Your task to perform on an android device: Add razer blade to the cart on target Image 0: 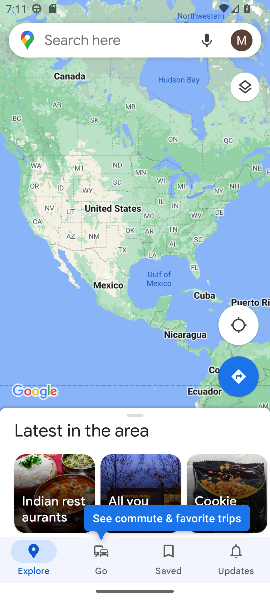
Step 0: press home button
Your task to perform on an android device: Add razer blade to the cart on target Image 1: 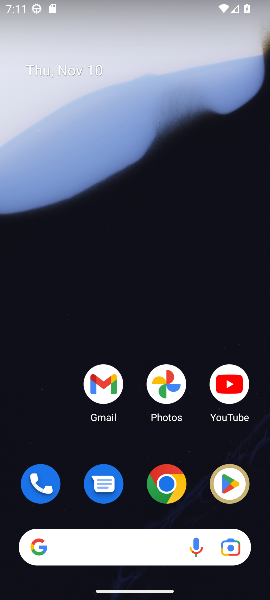
Step 1: click (168, 482)
Your task to perform on an android device: Add razer blade to the cart on target Image 2: 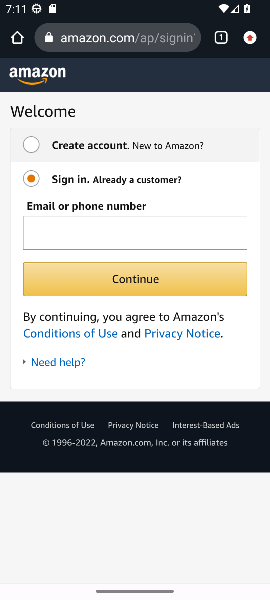
Step 2: click (114, 41)
Your task to perform on an android device: Add razer blade to the cart on target Image 3: 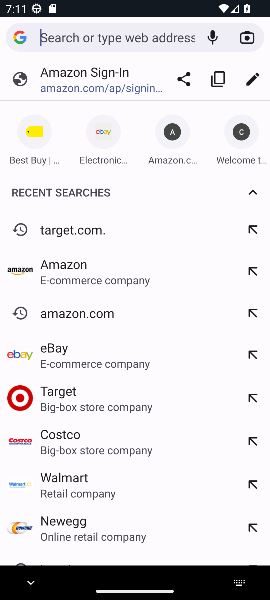
Step 3: type "target.com"
Your task to perform on an android device: Add razer blade to the cart on target Image 4: 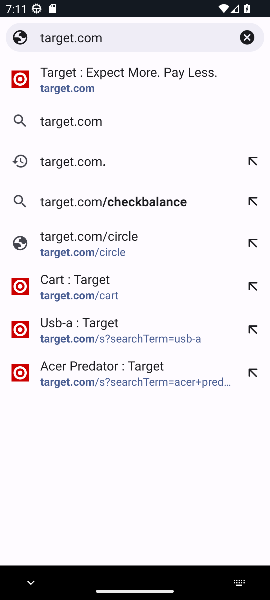
Step 4: click (59, 91)
Your task to perform on an android device: Add razer blade to the cart on target Image 5: 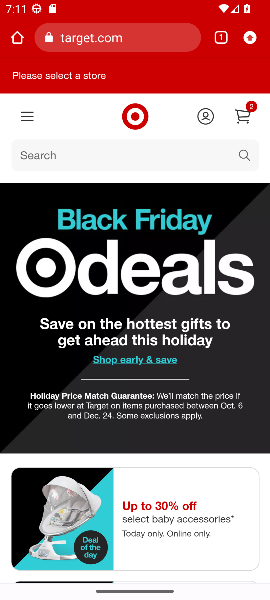
Step 5: click (246, 156)
Your task to perform on an android device: Add razer blade to the cart on target Image 6: 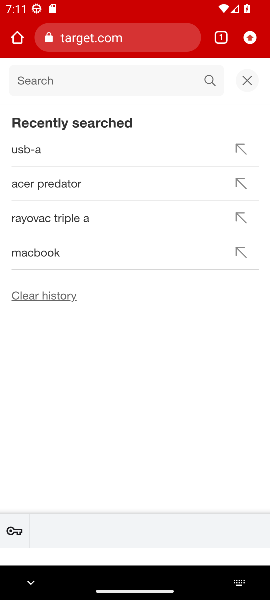
Step 6: type "razer blade "
Your task to perform on an android device: Add razer blade to the cart on target Image 7: 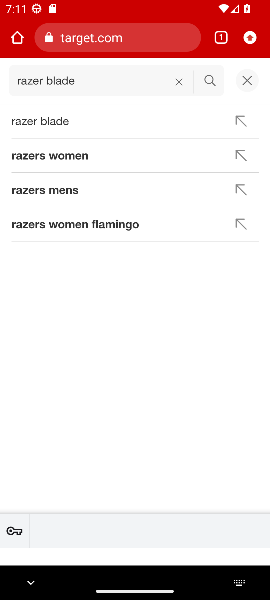
Step 7: click (25, 128)
Your task to perform on an android device: Add razer blade to the cart on target Image 8: 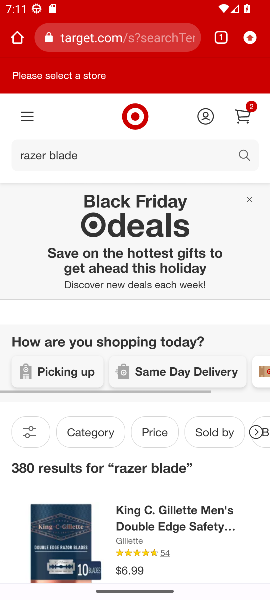
Step 8: task complete